Your task to perform on an android device: toggle notifications settings in the gmail app Image 0: 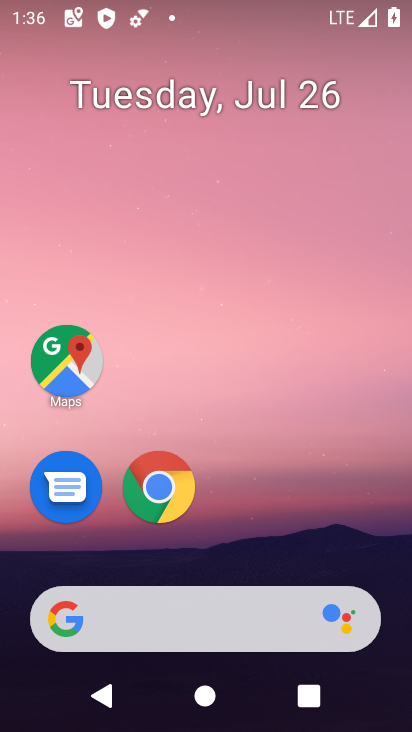
Step 0: drag from (242, 620) to (215, 158)
Your task to perform on an android device: toggle notifications settings in the gmail app Image 1: 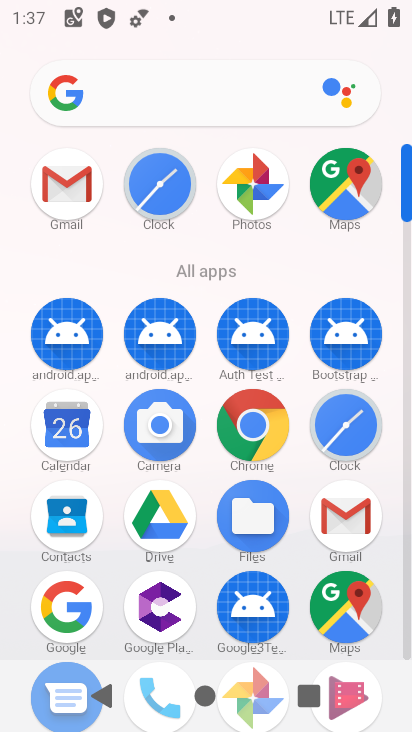
Step 1: click (360, 522)
Your task to perform on an android device: toggle notifications settings in the gmail app Image 2: 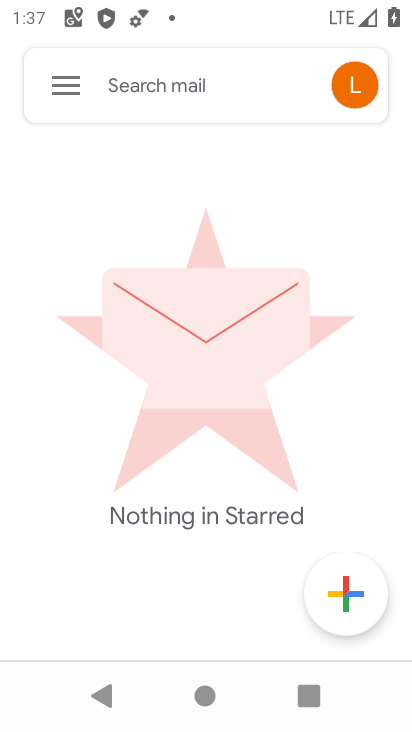
Step 2: click (64, 88)
Your task to perform on an android device: toggle notifications settings in the gmail app Image 3: 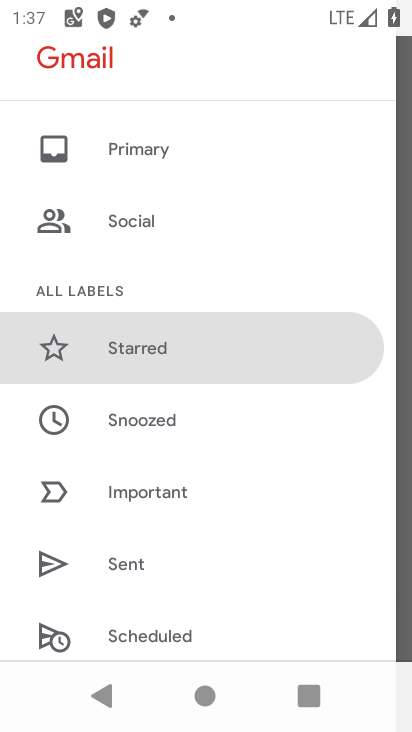
Step 3: drag from (148, 482) to (145, 213)
Your task to perform on an android device: toggle notifications settings in the gmail app Image 4: 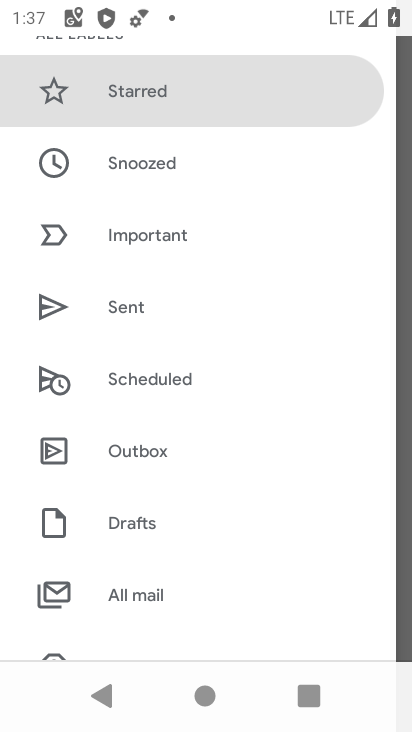
Step 4: drag from (184, 562) to (212, 146)
Your task to perform on an android device: toggle notifications settings in the gmail app Image 5: 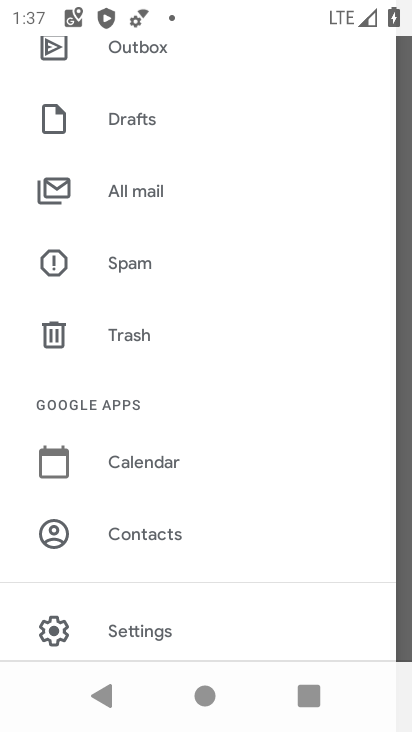
Step 5: click (142, 622)
Your task to perform on an android device: toggle notifications settings in the gmail app Image 6: 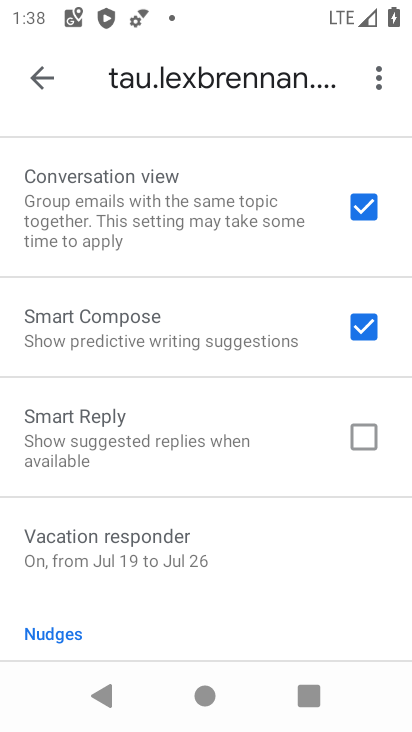
Step 6: click (47, 85)
Your task to perform on an android device: toggle notifications settings in the gmail app Image 7: 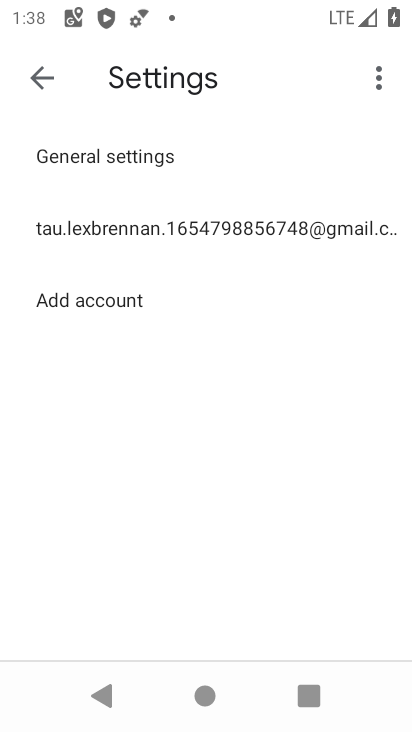
Step 7: click (123, 153)
Your task to perform on an android device: toggle notifications settings in the gmail app Image 8: 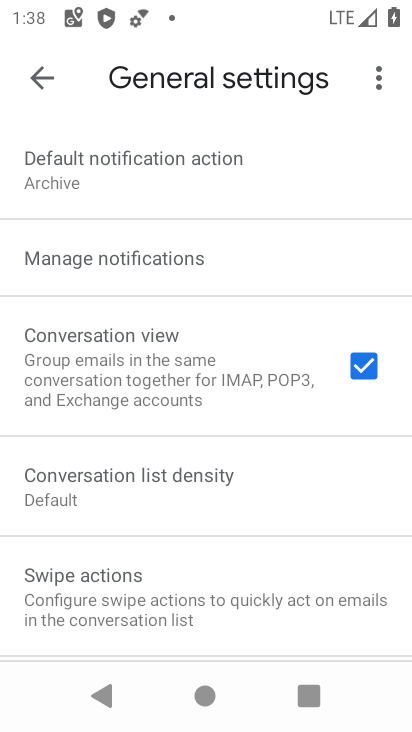
Step 8: click (162, 266)
Your task to perform on an android device: toggle notifications settings in the gmail app Image 9: 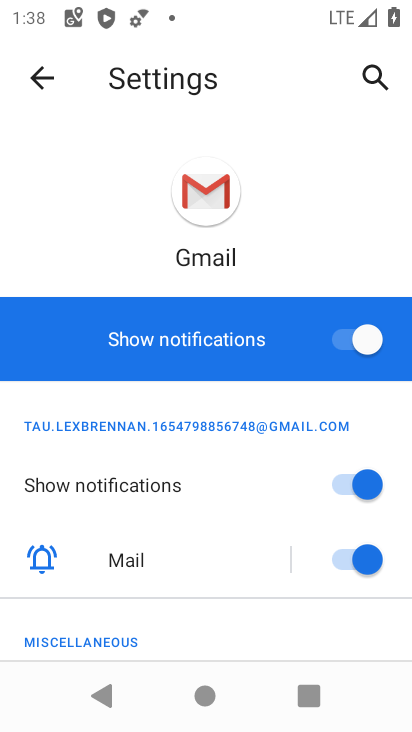
Step 9: click (355, 346)
Your task to perform on an android device: toggle notifications settings in the gmail app Image 10: 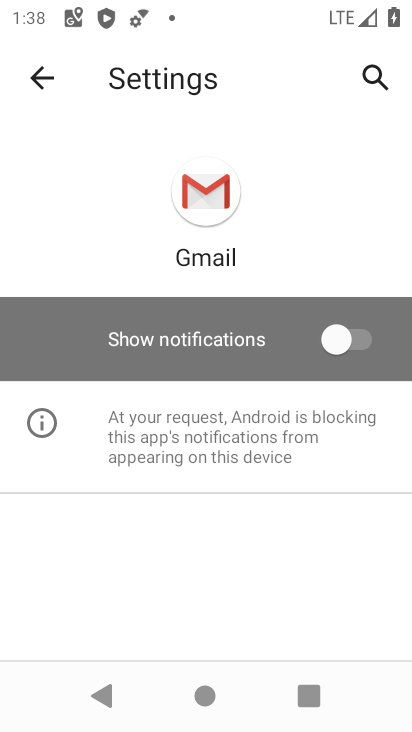
Step 10: task complete